Your task to perform on an android device: toggle priority inbox in the gmail app Image 0: 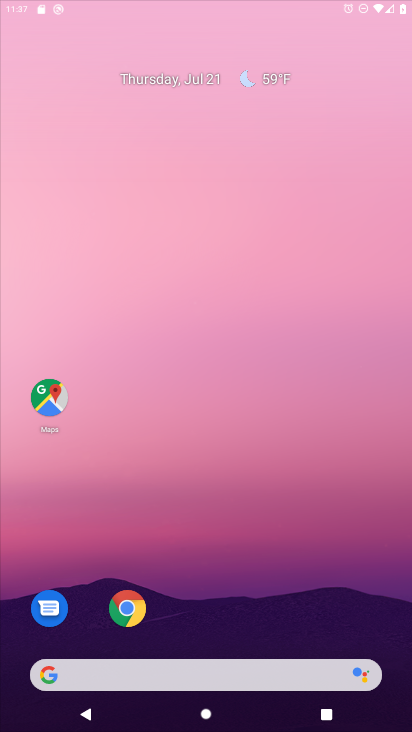
Step 0: drag from (270, 302) to (171, 33)
Your task to perform on an android device: toggle priority inbox in the gmail app Image 1: 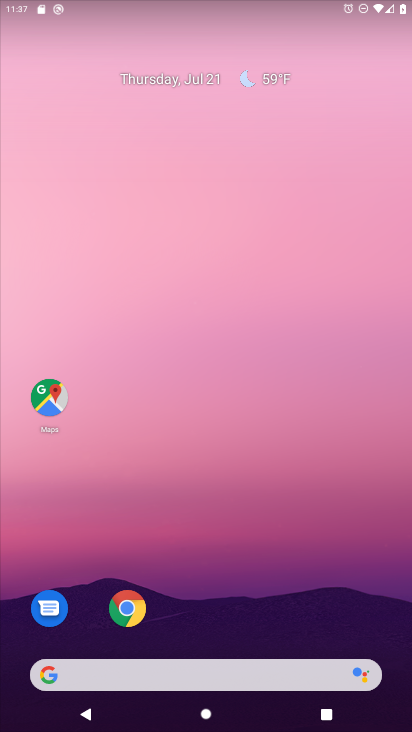
Step 1: drag from (331, 607) to (167, 88)
Your task to perform on an android device: toggle priority inbox in the gmail app Image 2: 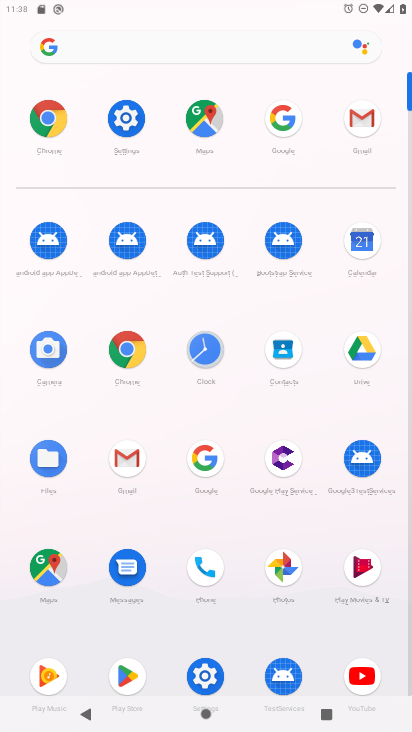
Step 2: click (141, 453)
Your task to perform on an android device: toggle priority inbox in the gmail app Image 3: 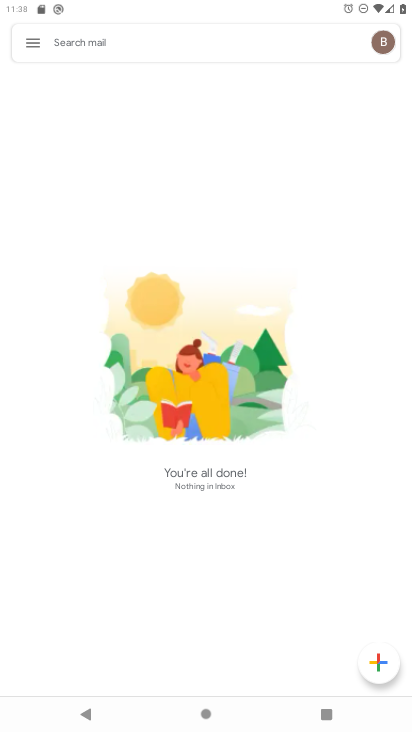
Step 3: click (22, 41)
Your task to perform on an android device: toggle priority inbox in the gmail app Image 4: 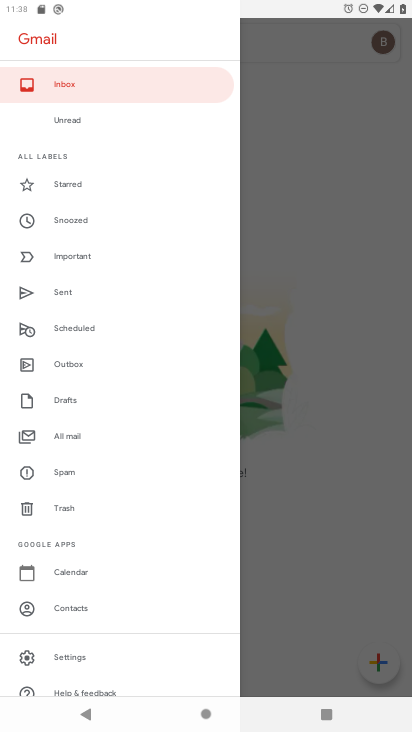
Step 4: drag from (67, 638) to (119, 108)
Your task to perform on an android device: toggle priority inbox in the gmail app Image 5: 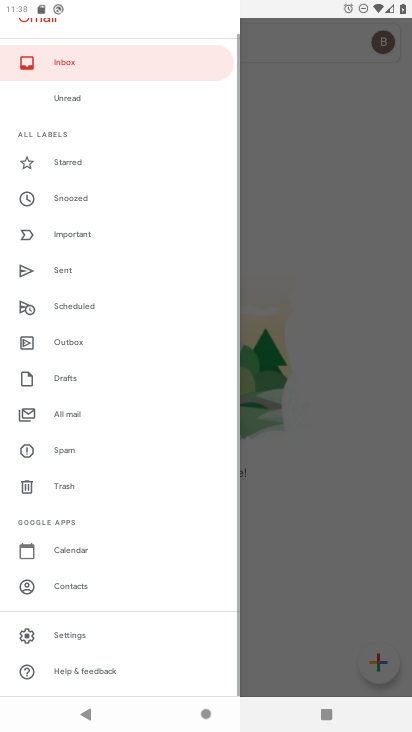
Step 5: click (77, 651)
Your task to perform on an android device: toggle priority inbox in the gmail app Image 6: 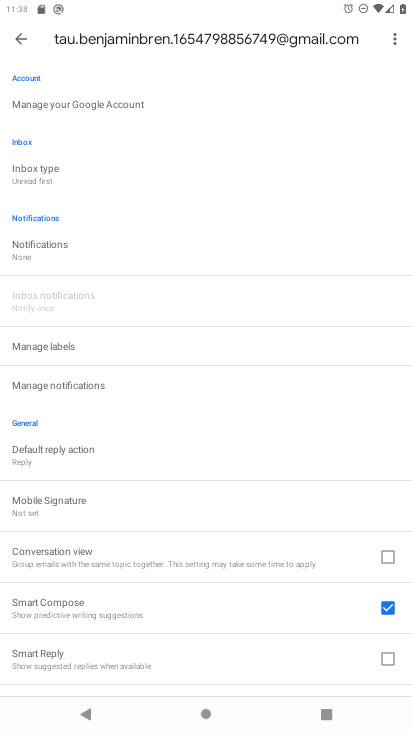
Step 6: click (42, 172)
Your task to perform on an android device: toggle priority inbox in the gmail app Image 7: 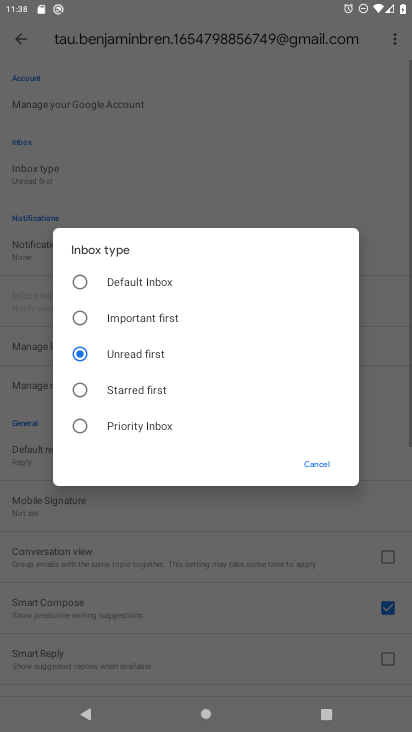
Step 7: click (92, 273)
Your task to perform on an android device: toggle priority inbox in the gmail app Image 8: 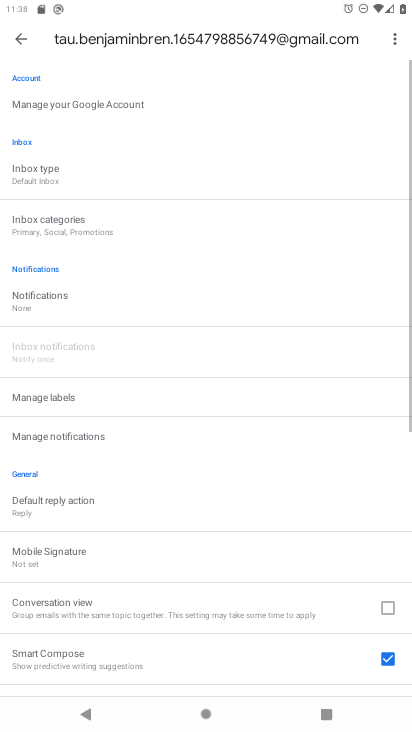
Step 8: task complete